Your task to perform on an android device: install app "WhatsApp Messenger" Image 0: 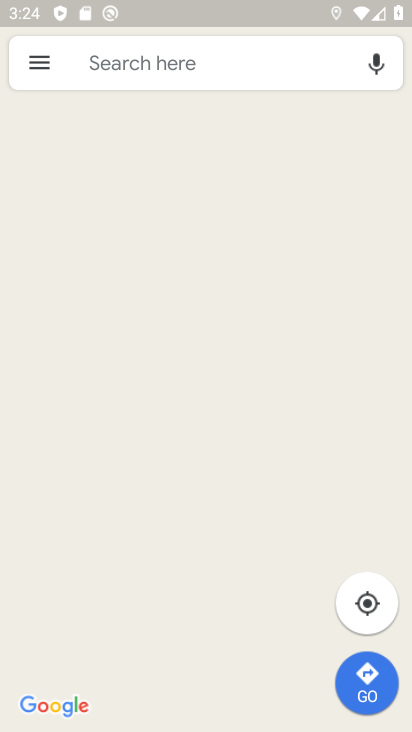
Step 0: press home button
Your task to perform on an android device: install app "WhatsApp Messenger" Image 1: 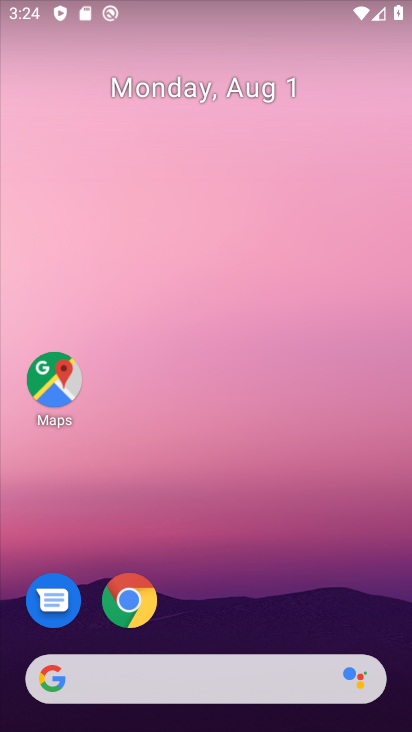
Step 1: drag from (328, 550) to (293, 2)
Your task to perform on an android device: install app "WhatsApp Messenger" Image 2: 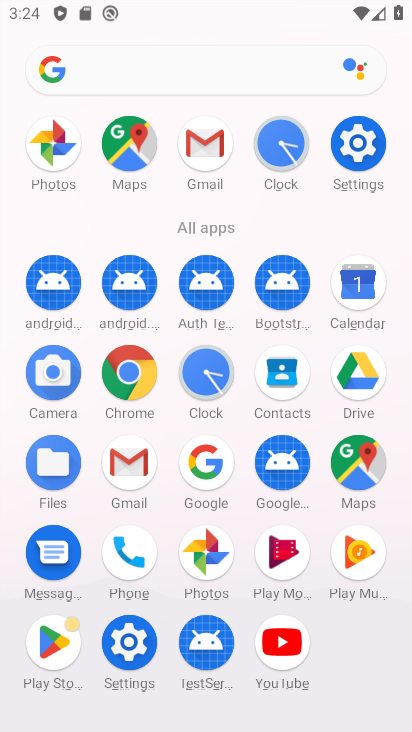
Step 2: click (46, 632)
Your task to perform on an android device: install app "WhatsApp Messenger" Image 3: 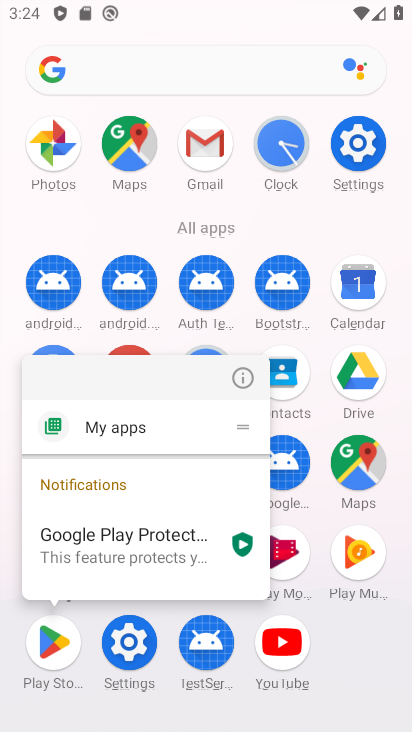
Step 3: click (54, 636)
Your task to perform on an android device: install app "WhatsApp Messenger" Image 4: 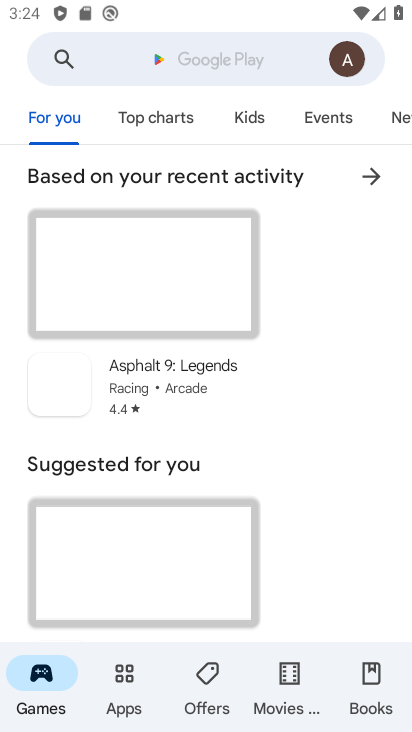
Step 4: click (212, 49)
Your task to perform on an android device: install app "WhatsApp Messenger" Image 5: 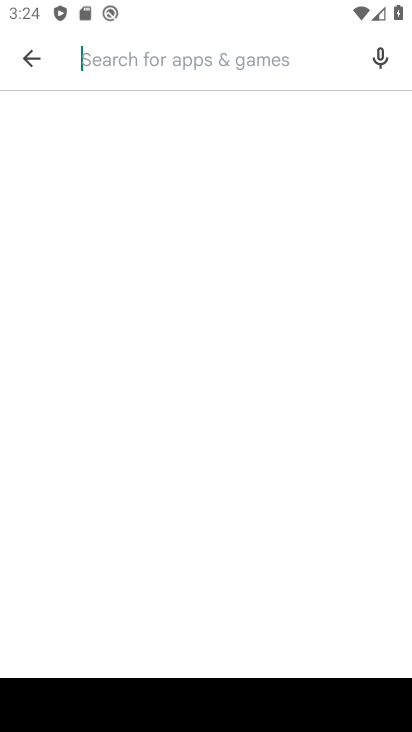
Step 5: type "WhatsApp Messenger"
Your task to perform on an android device: install app "WhatsApp Messenger" Image 6: 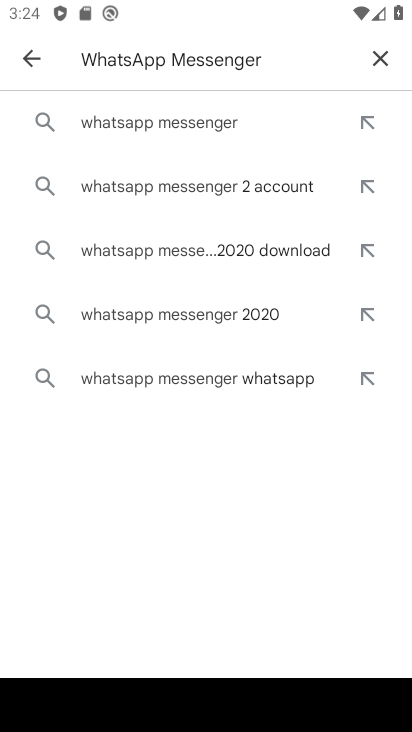
Step 6: press enter
Your task to perform on an android device: install app "WhatsApp Messenger" Image 7: 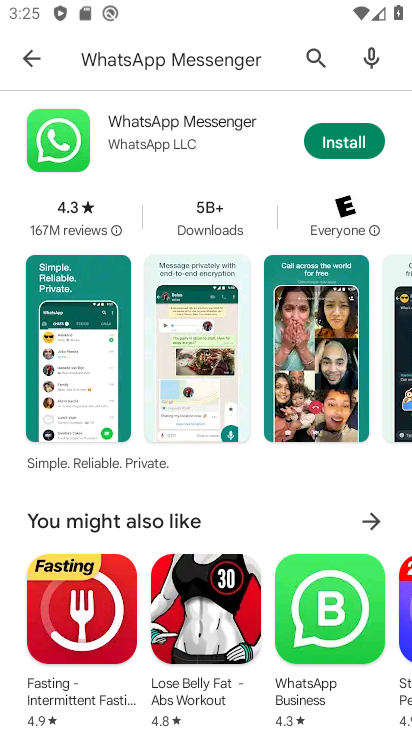
Step 7: click (343, 132)
Your task to perform on an android device: install app "WhatsApp Messenger" Image 8: 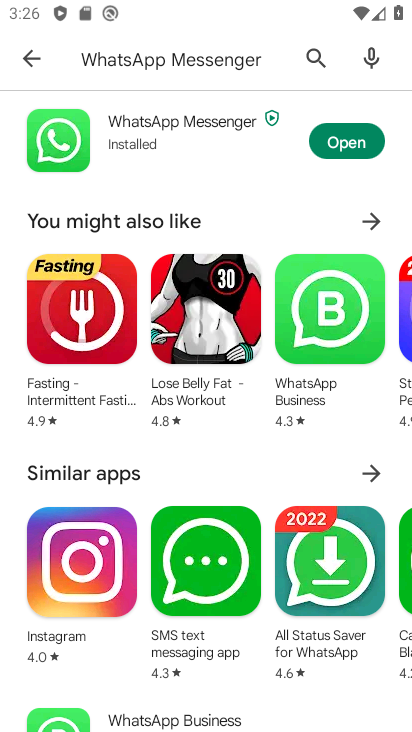
Step 8: task complete